Your task to perform on an android device: Is it going to rain today? Image 0: 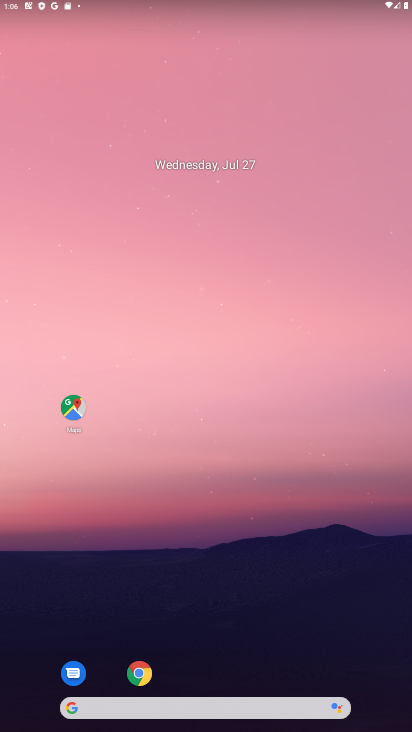
Step 0: click (139, 705)
Your task to perform on an android device: Is it going to rain today? Image 1: 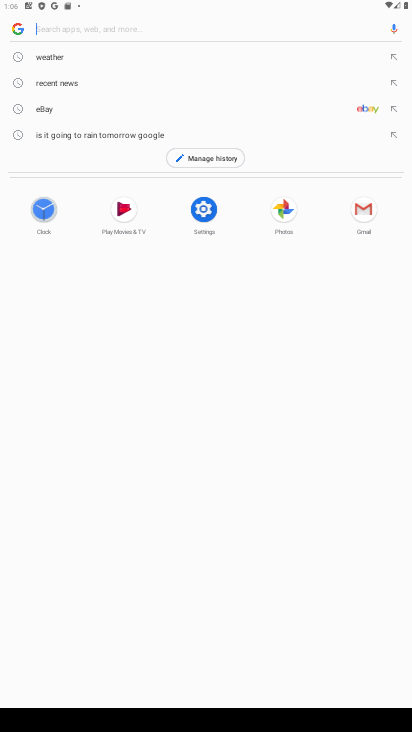
Step 1: click (39, 61)
Your task to perform on an android device: Is it going to rain today? Image 2: 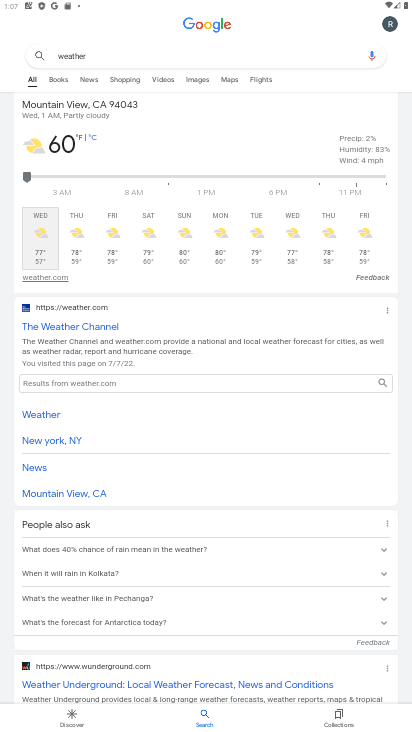
Step 2: task complete